Your task to perform on an android device: Go to calendar. Show me events next week Image 0: 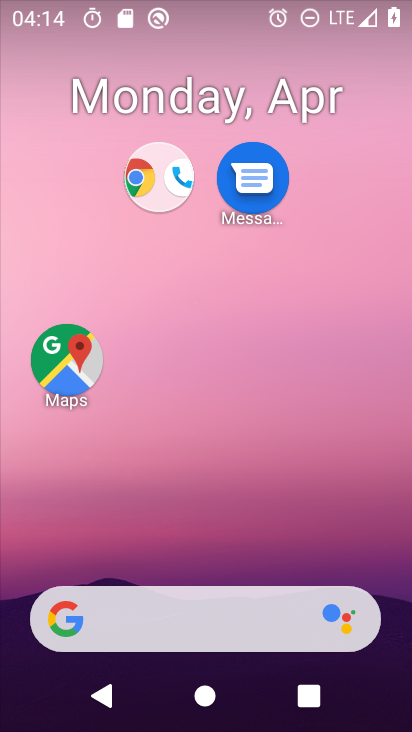
Step 0: drag from (269, 581) to (281, 180)
Your task to perform on an android device: Go to calendar. Show me events next week Image 1: 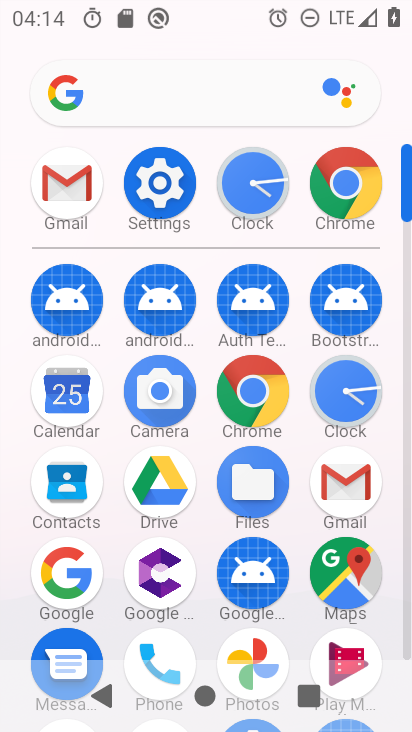
Step 1: click (84, 362)
Your task to perform on an android device: Go to calendar. Show me events next week Image 2: 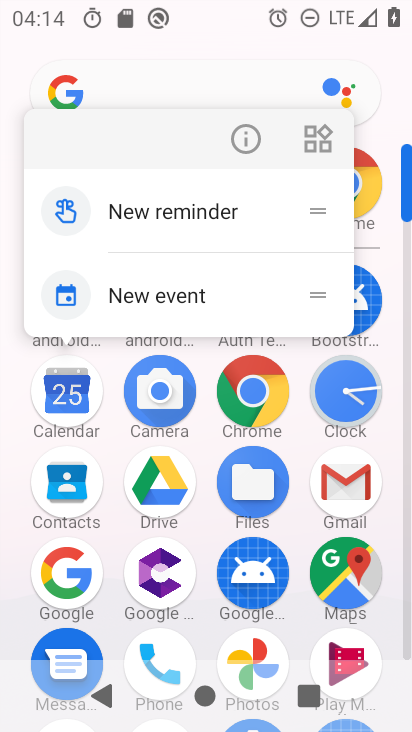
Step 2: click (73, 385)
Your task to perform on an android device: Go to calendar. Show me events next week Image 3: 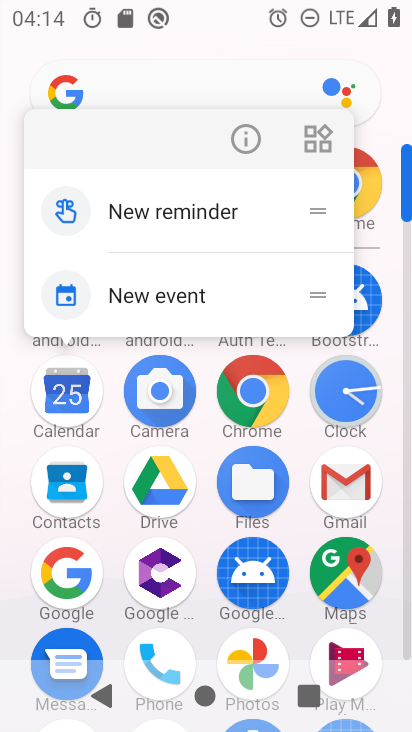
Step 3: click (73, 385)
Your task to perform on an android device: Go to calendar. Show me events next week Image 4: 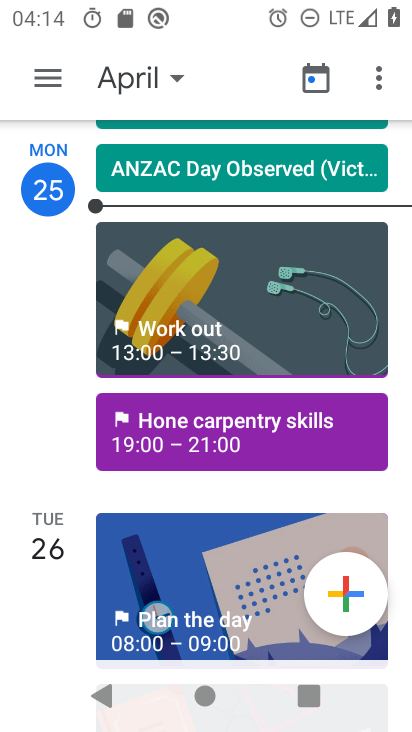
Step 4: click (176, 76)
Your task to perform on an android device: Go to calendar. Show me events next week Image 5: 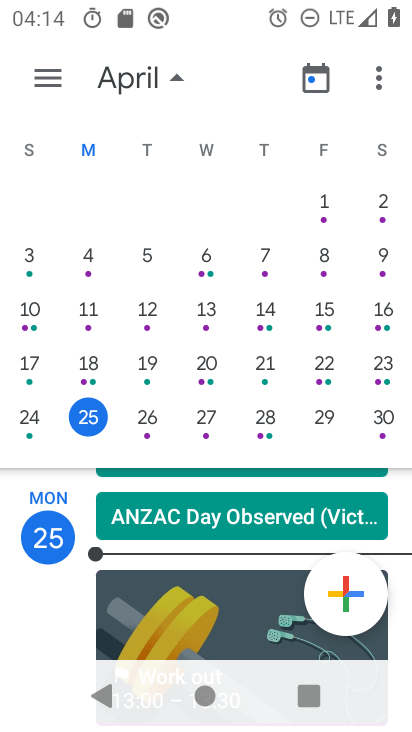
Step 5: drag from (355, 287) to (5, 296)
Your task to perform on an android device: Go to calendar. Show me events next week Image 6: 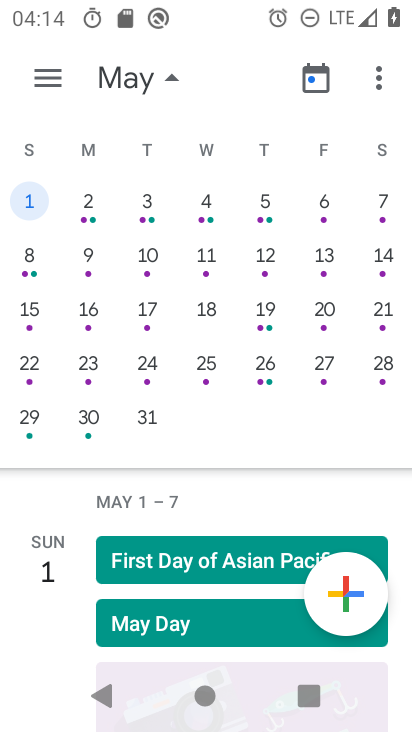
Step 6: click (259, 205)
Your task to perform on an android device: Go to calendar. Show me events next week Image 7: 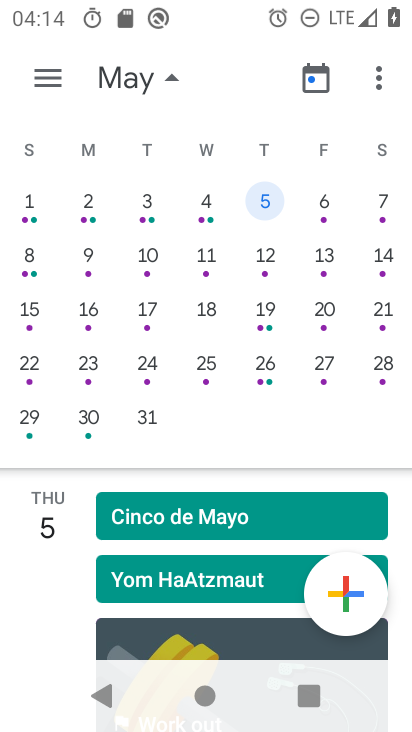
Step 7: click (55, 78)
Your task to perform on an android device: Go to calendar. Show me events next week Image 8: 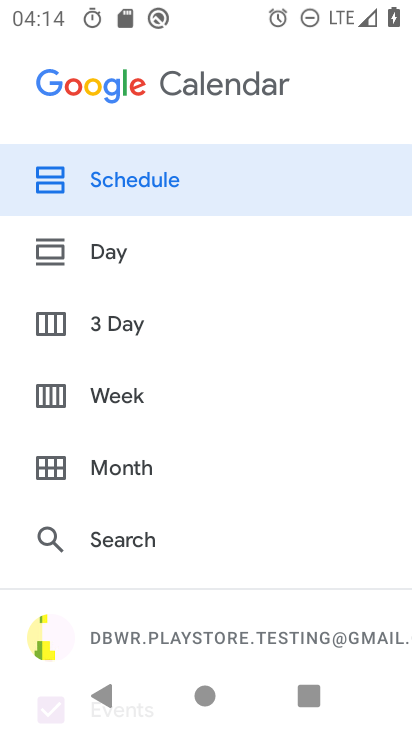
Step 8: click (132, 393)
Your task to perform on an android device: Go to calendar. Show me events next week Image 9: 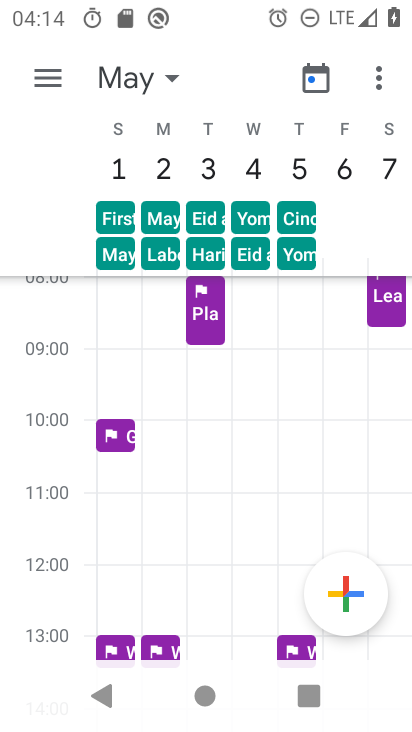
Step 9: task complete